Your task to perform on an android device: find which apps use the phone's location Image 0: 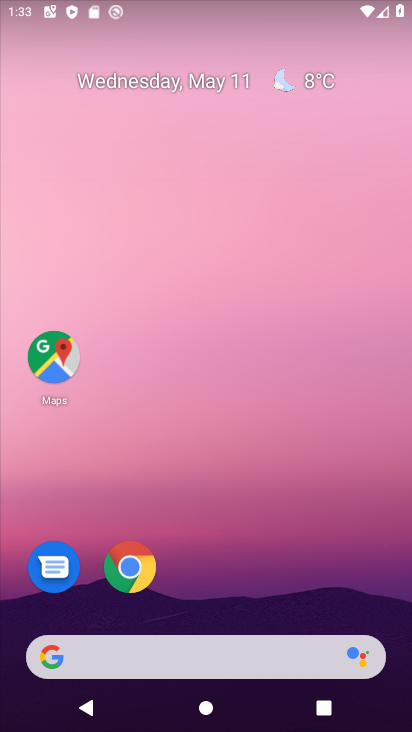
Step 0: click (350, 351)
Your task to perform on an android device: find which apps use the phone's location Image 1: 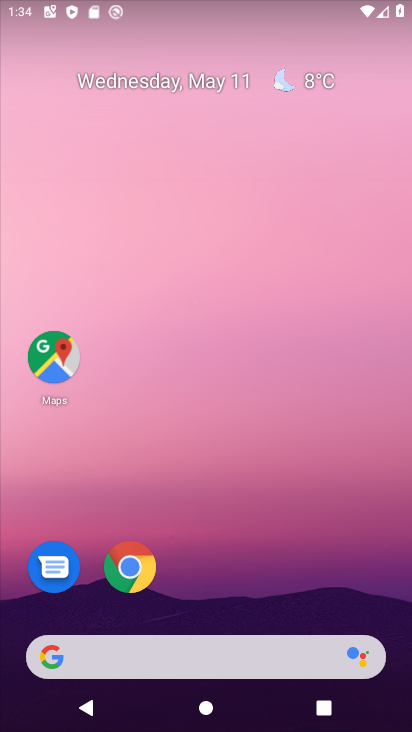
Step 1: drag from (303, 560) to (260, 238)
Your task to perform on an android device: find which apps use the phone's location Image 2: 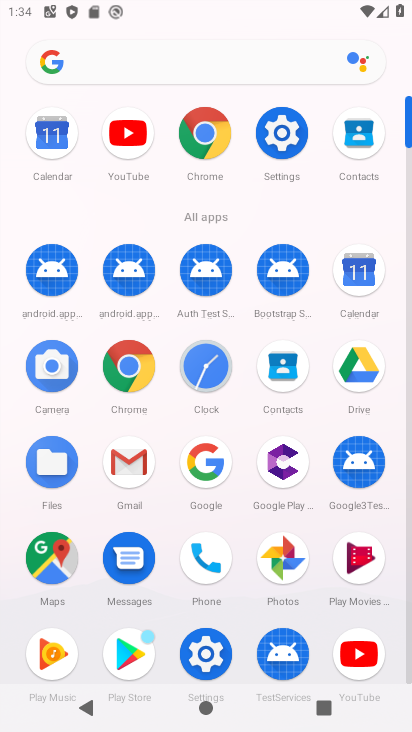
Step 2: click (213, 644)
Your task to perform on an android device: find which apps use the phone's location Image 3: 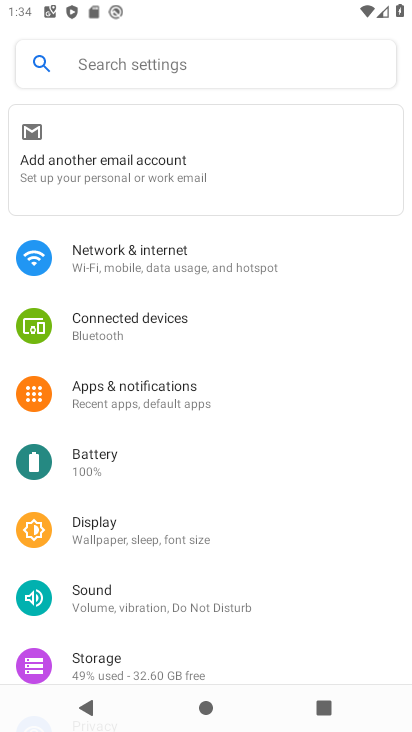
Step 3: drag from (195, 573) to (146, 330)
Your task to perform on an android device: find which apps use the phone's location Image 4: 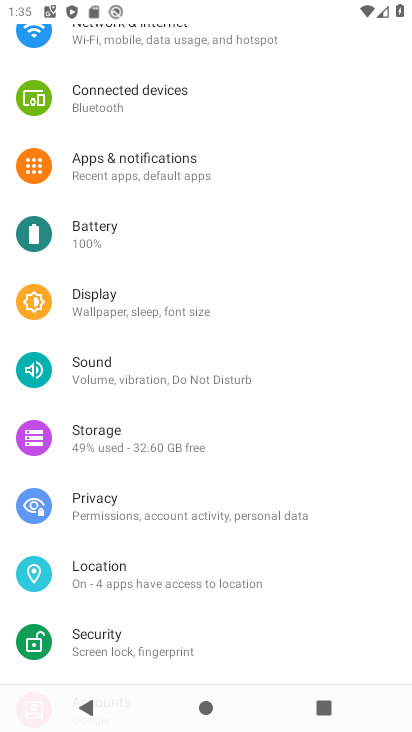
Step 4: click (163, 579)
Your task to perform on an android device: find which apps use the phone's location Image 5: 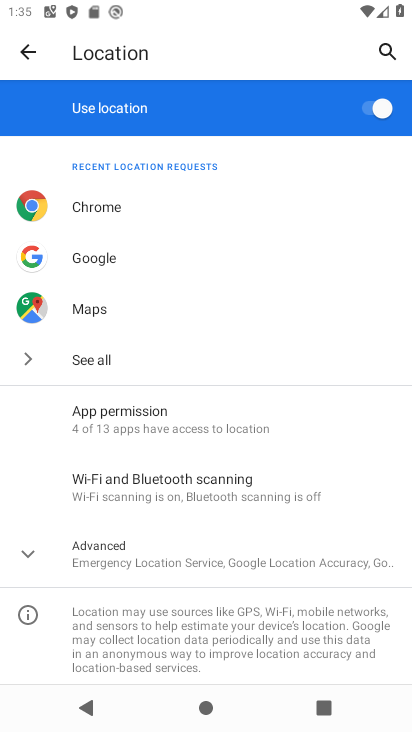
Step 5: click (162, 422)
Your task to perform on an android device: find which apps use the phone's location Image 6: 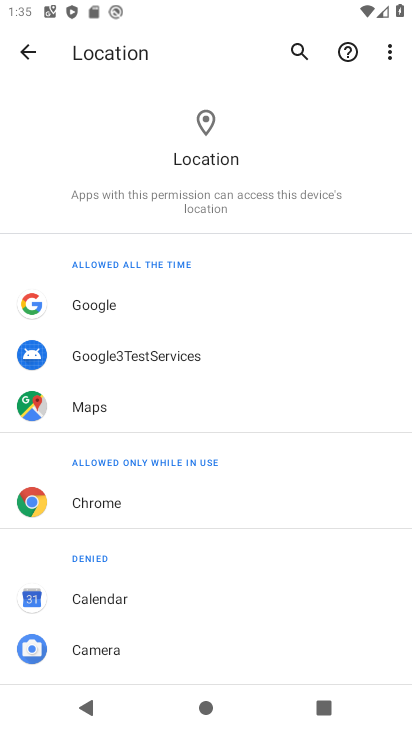
Step 6: task complete